Your task to perform on an android device: toggle show notifications on the lock screen Image 0: 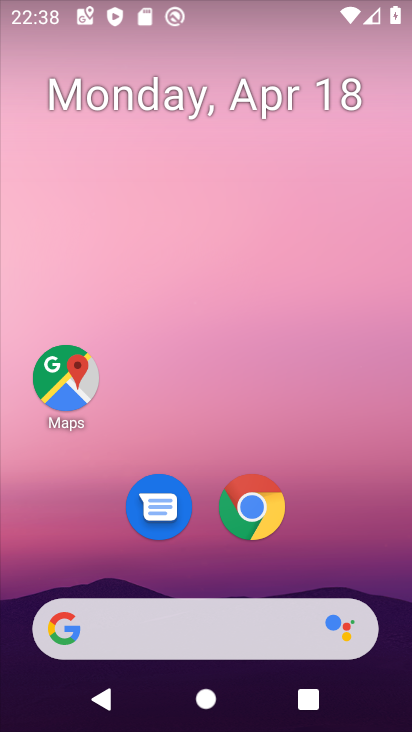
Step 0: drag from (344, 482) to (342, 34)
Your task to perform on an android device: toggle show notifications on the lock screen Image 1: 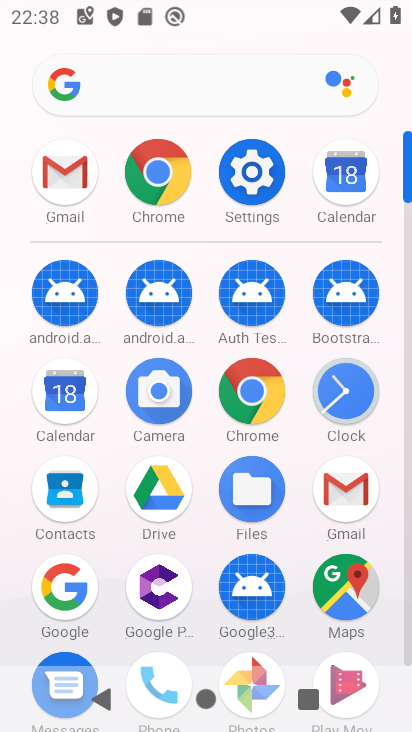
Step 1: click (249, 180)
Your task to perform on an android device: toggle show notifications on the lock screen Image 2: 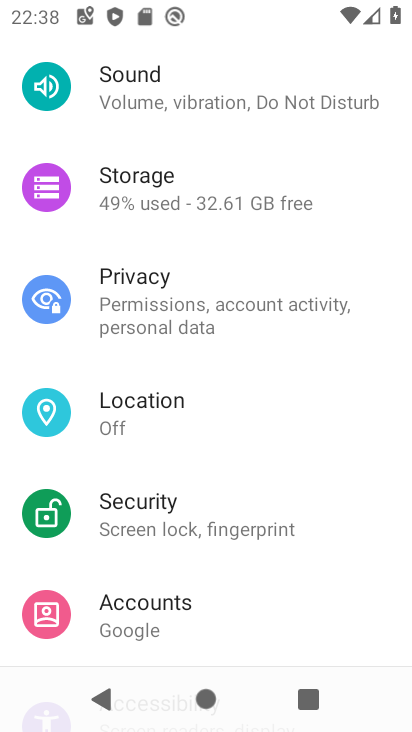
Step 2: drag from (236, 208) to (194, 568)
Your task to perform on an android device: toggle show notifications on the lock screen Image 3: 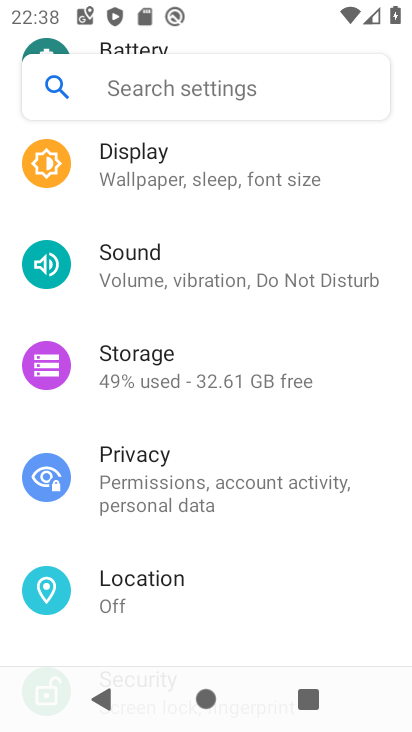
Step 3: drag from (223, 239) to (218, 510)
Your task to perform on an android device: toggle show notifications on the lock screen Image 4: 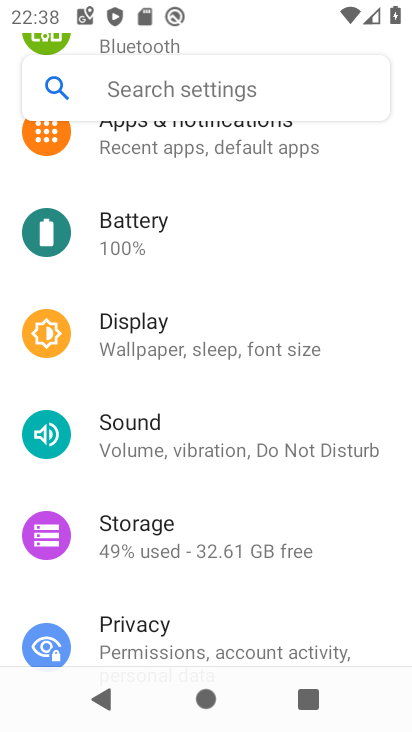
Step 4: drag from (255, 272) to (227, 538)
Your task to perform on an android device: toggle show notifications on the lock screen Image 5: 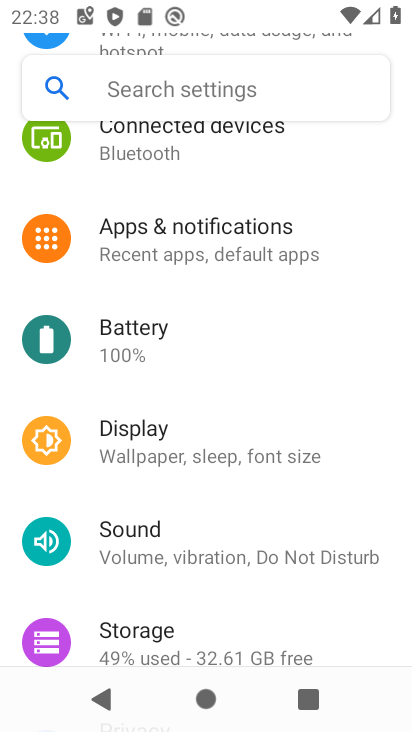
Step 5: click (244, 240)
Your task to perform on an android device: toggle show notifications on the lock screen Image 6: 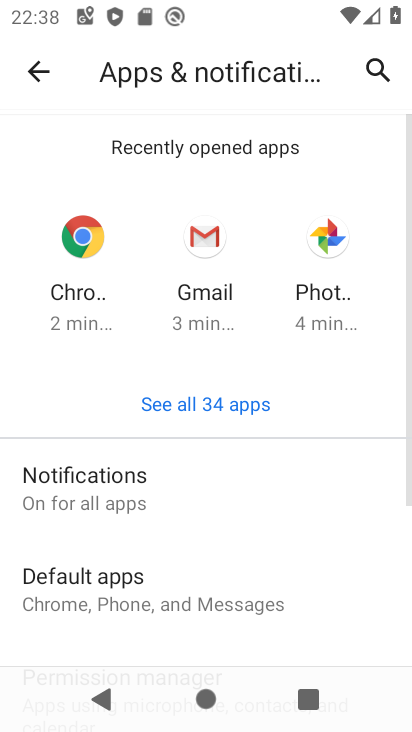
Step 6: click (148, 483)
Your task to perform on an android device: toggle show notifications on the lock screen Image 7: 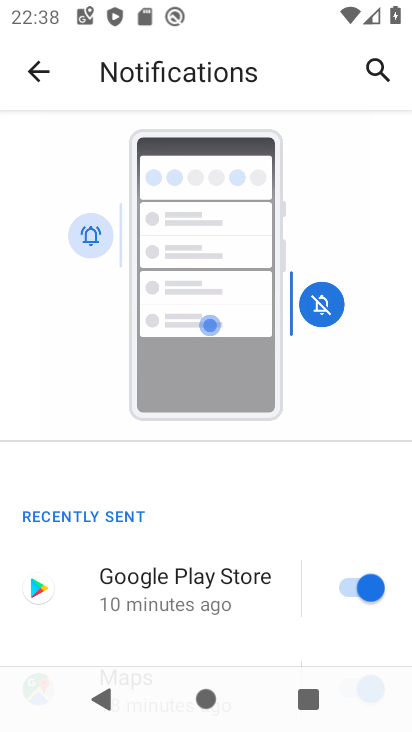
Step 7: drag from (223, 550) to (275, 244)
Your task to perform on an android device: toggle show notifications on the lock screen Image 8: 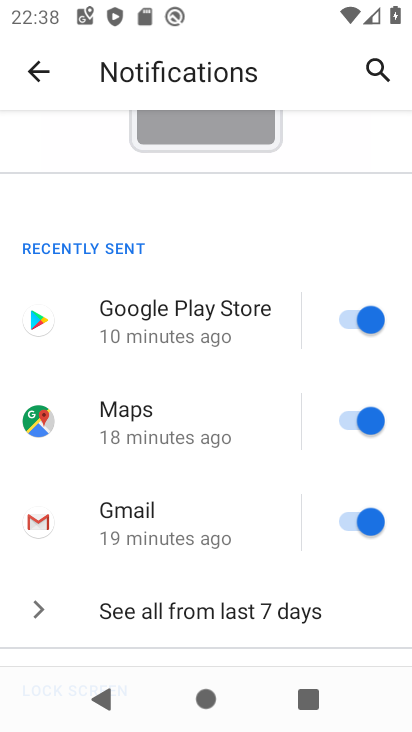
Step 8: drag from (214, 523) to (281, 237)
Your task to perform on an android device: toggle show notifications on the lock screen Image 9: 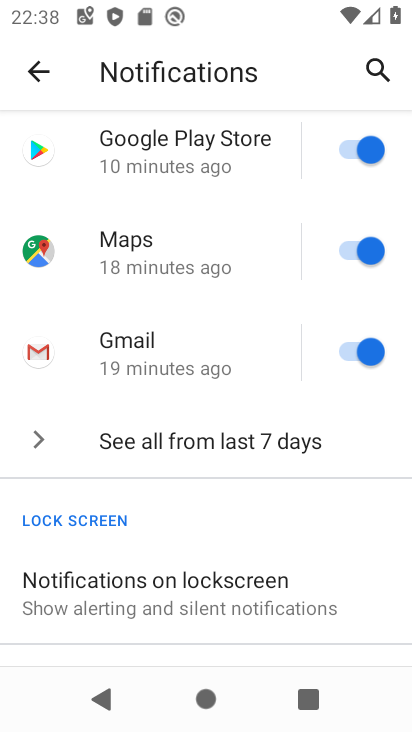
Step 9: click (267, 570)
Your task to perform on an android device: toggle show notifications on the lock screen Image 10: 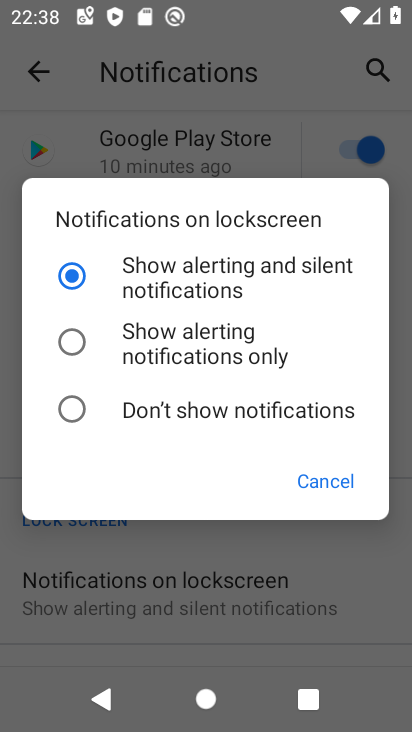
Step 10: click (73, 401)
Your task to perform on an android device: toggle show notifications on the lock screen Image 11: 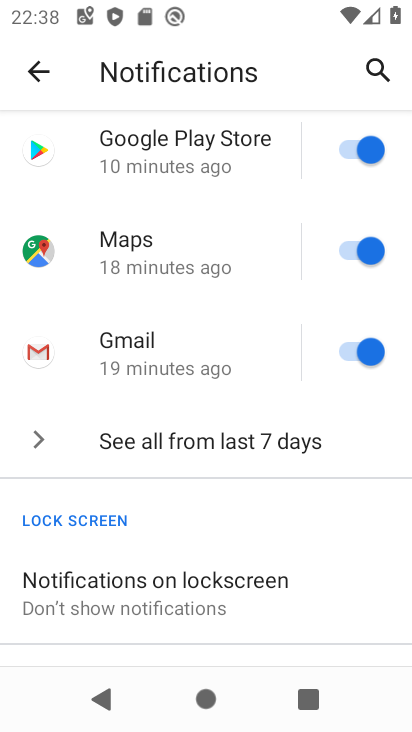
Step 11: task complete